Your task to perform on an android device: Go to sound settings Image 0: 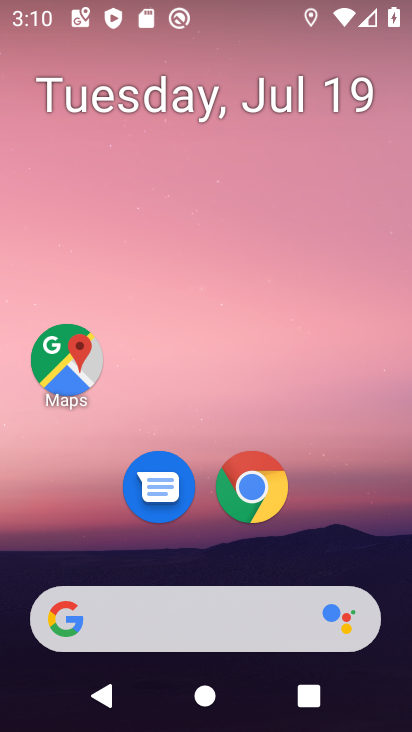
Step 0: drag from (140, 577) to (216, 94)
Your task to perform on an android device: Go to sound settings Image 1: 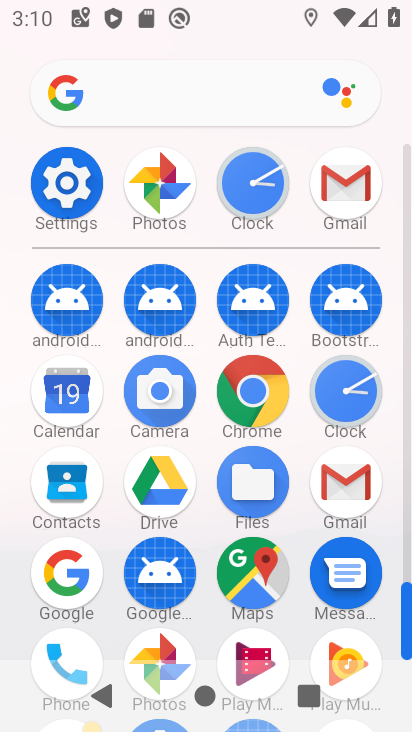
Step 1: click (74, 198)
Your task to perform on an android device: Go to sound settings Image 2: 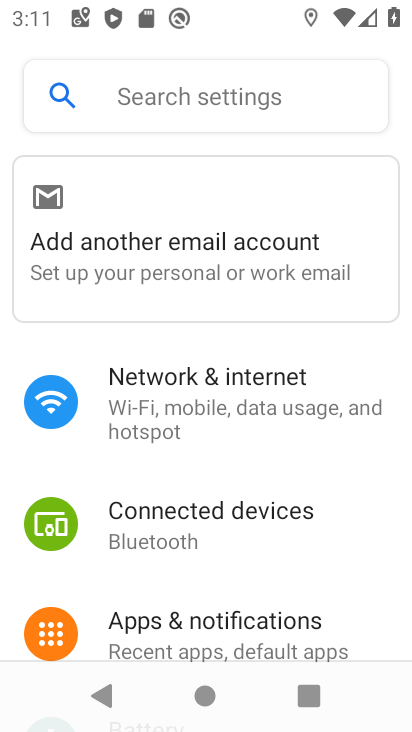
Step 2: drag from (183, 579) to (267, 19)
Your task to perform on an android device: Go to sound settings Image 3: 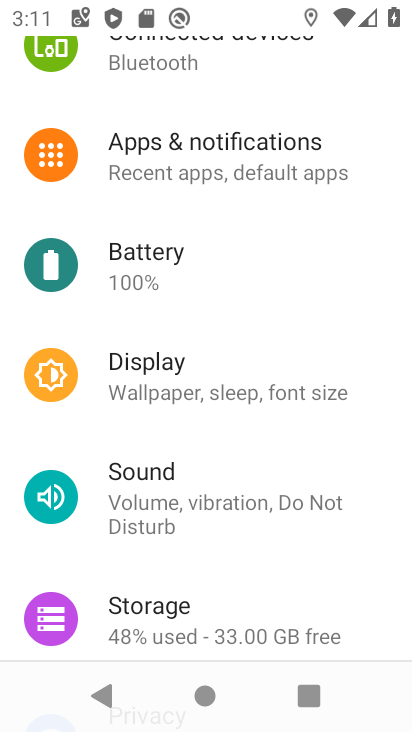
Step 3: click (170, 486)
Your task to perform on an android device: Go to sound settings Image 4: 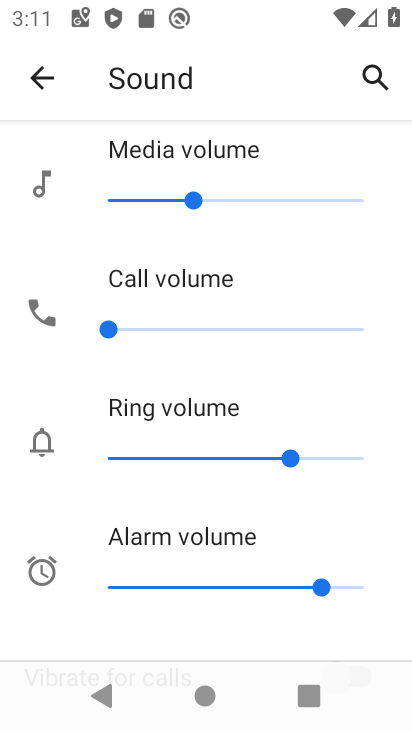
Step 4: task complete